Your task to perform on an android device: Go to Maps Image 0: 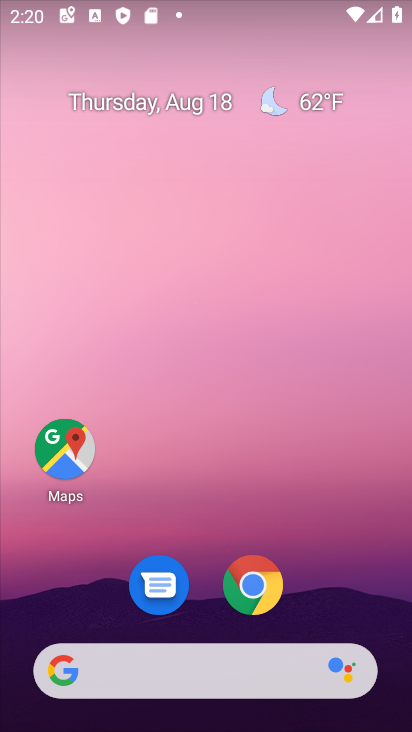
Step 0: click (67, 448)
Your task to perform on an android device: Go to Maps Image 1: 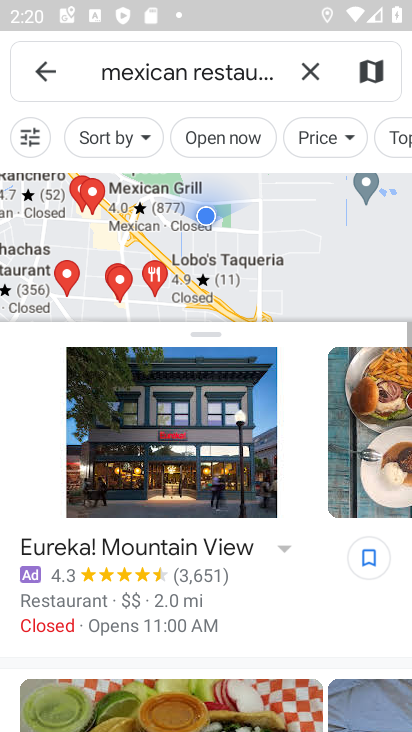
Step 1: click (44, 67)
Your task to perform on an android device: Go to Maps Image 2: 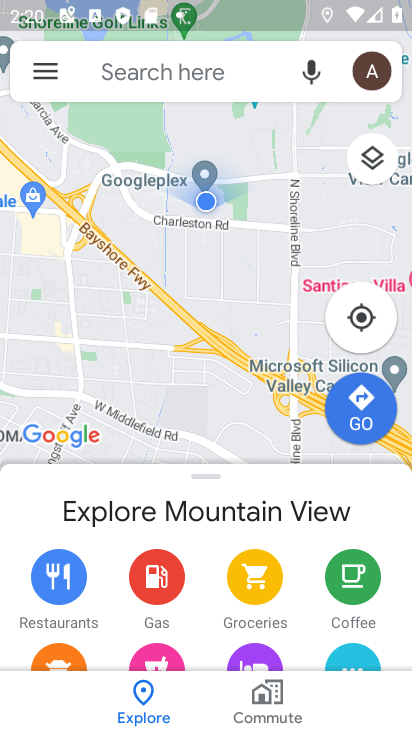
Step 2: task complete